Your task to perform on an android device: change the upload size in google photos Image 0: 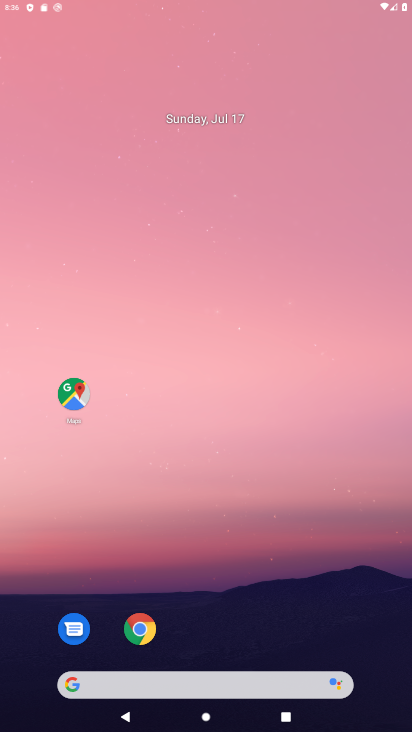
Step 0: click (286, 105)
Your task to perform on an android device: change the upload size in google photos Image 1: 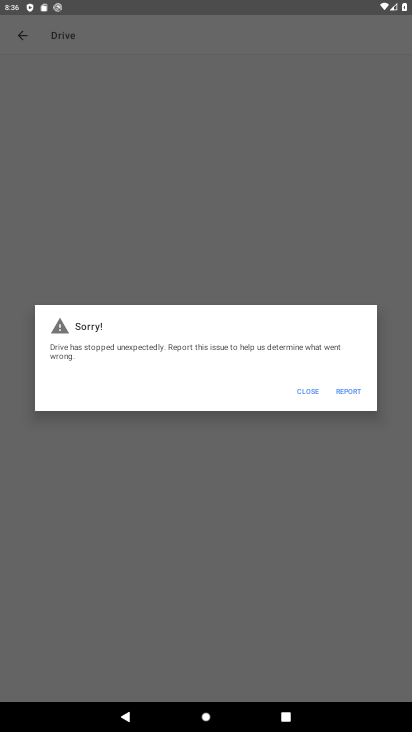
Step 1: press home button
Your task to perform on an android device: change the upload size in google photos Image 2: 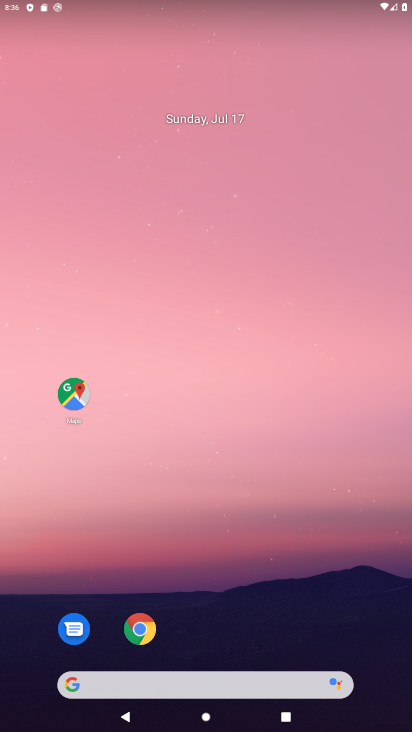
Step 2: drag from (214, 668) to (289, 84)
Your task to perform on an android device: change the upload size in google photos Image 3: 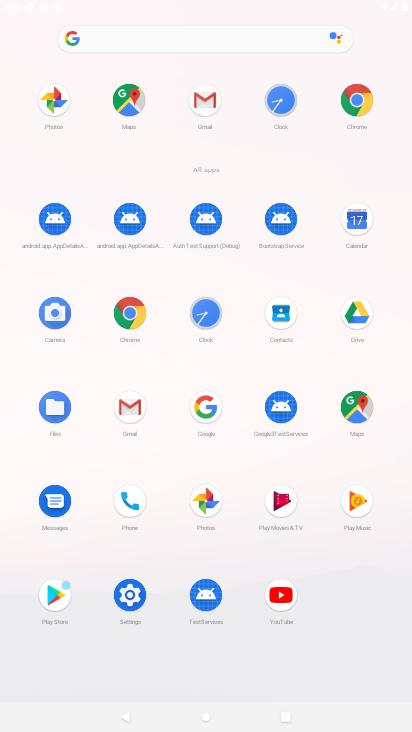
Step 3: click (197, 498)
Your task to perform on an android device: change the upload size in google photos Image 4: 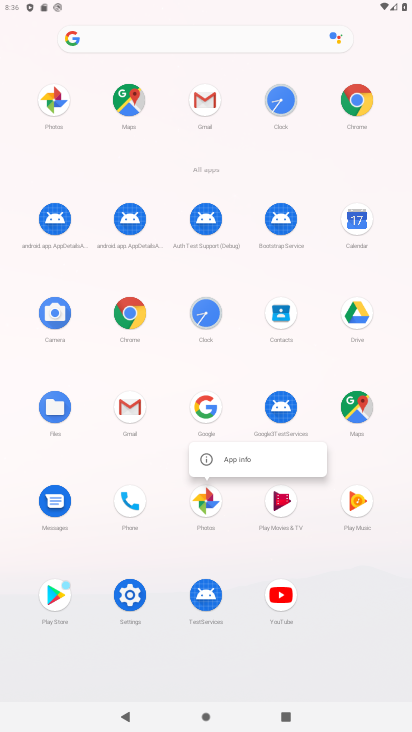
Step 4: click (203, 499)
Your task to perform on an android device: change the upload size in google photos Image 5: 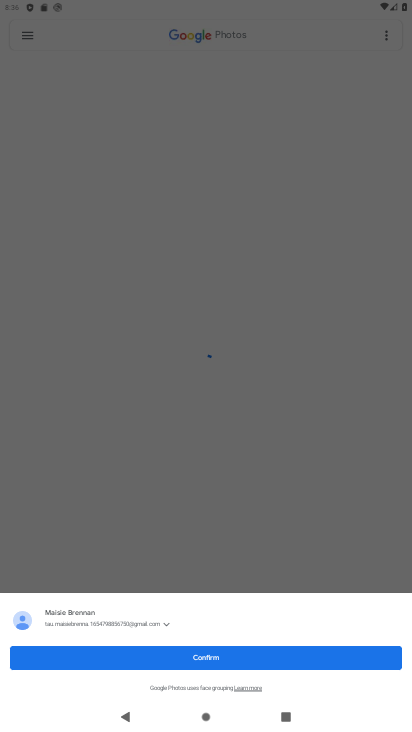
Step 5: click (29, 36)
Your task to perform on an android device: change the upload size in google photos Image 6: 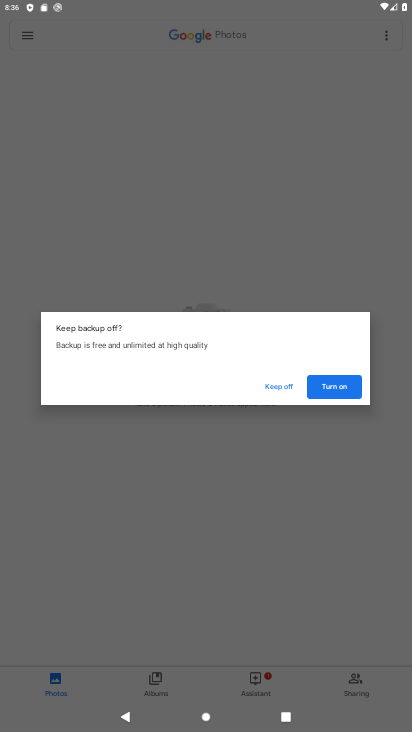
Step 6: click (337, 386)
Your task to perform on an android device: change the upload size in google photos Image 7: 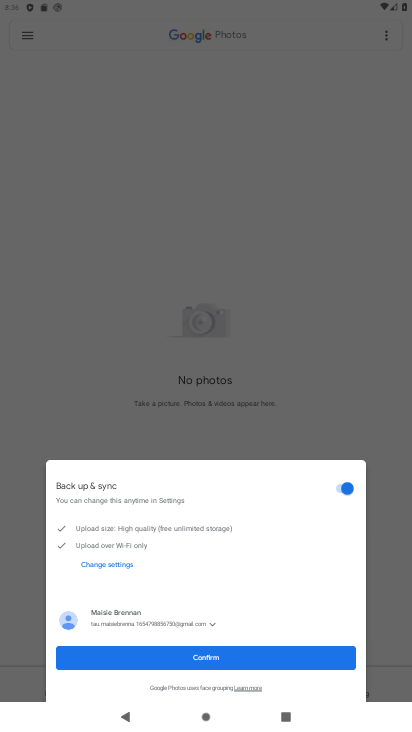
Step 7: click (197, 654)
Your task to perform on an android device: change the upload size in google photos Image 8: 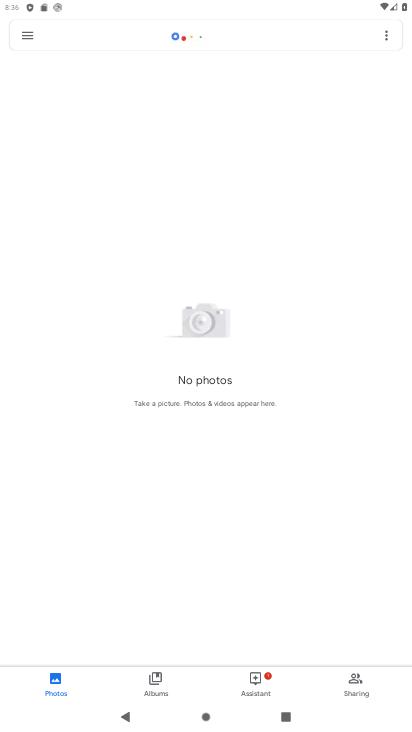
Step 8: click (38, 41)
Your task to perform on an android device: change the upload size in google photos Image 9: 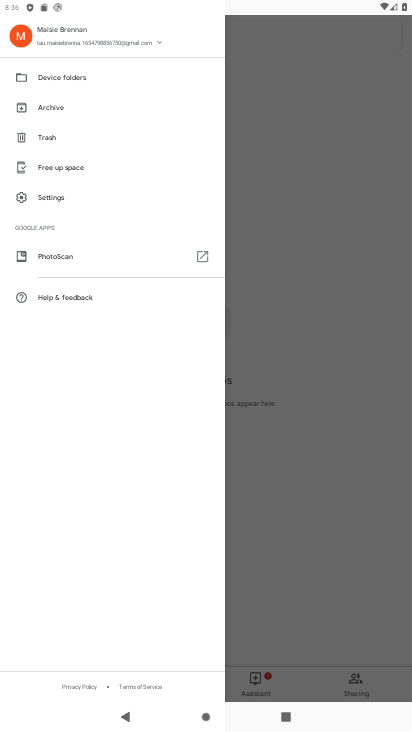
Step 9: click (83, 201)
Your task to perform on an android device: change the upload size in google photos Image 10: 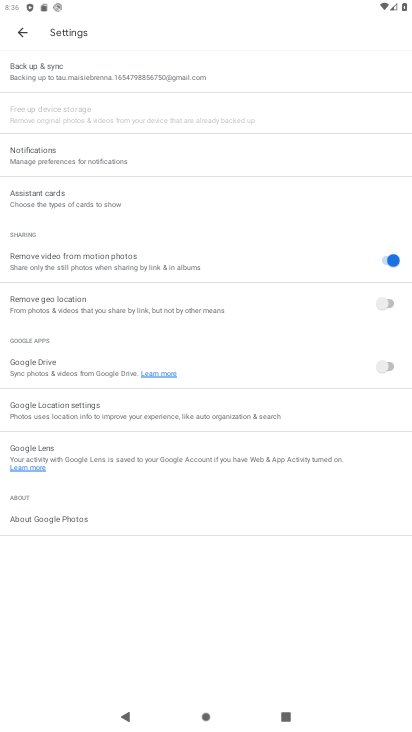
Step 10: click (88, 75)
Your task to perform on an android device: change the upload size in google photos Image 11: 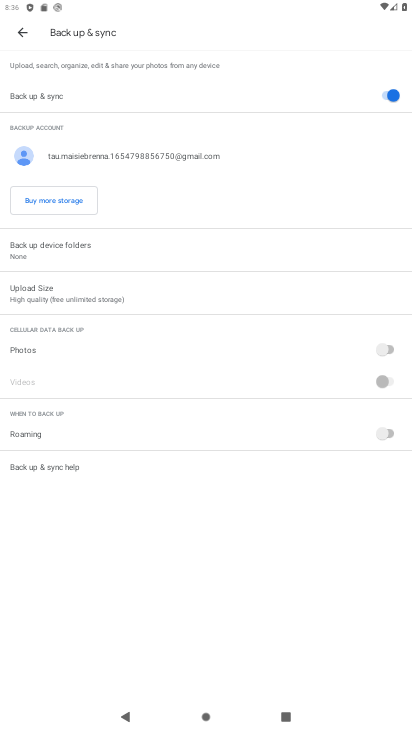
Step 11: click (108, 302)
Your task to perform on an android device: change the upload size in google photos Image 12: 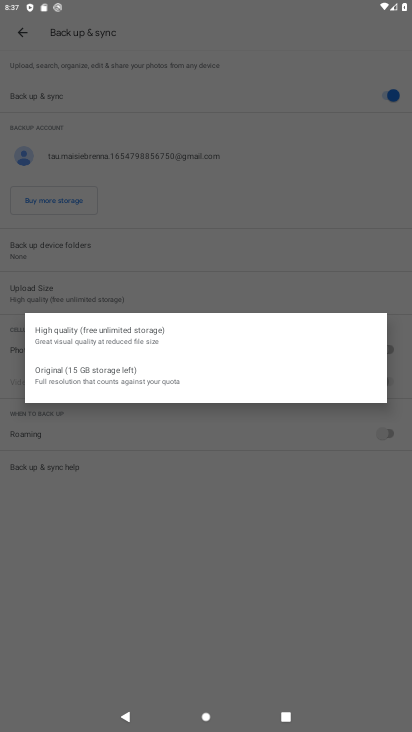
Step 12: click (95, 368)
Your task to perform on an android device: change the upload size in google photos Image 13: 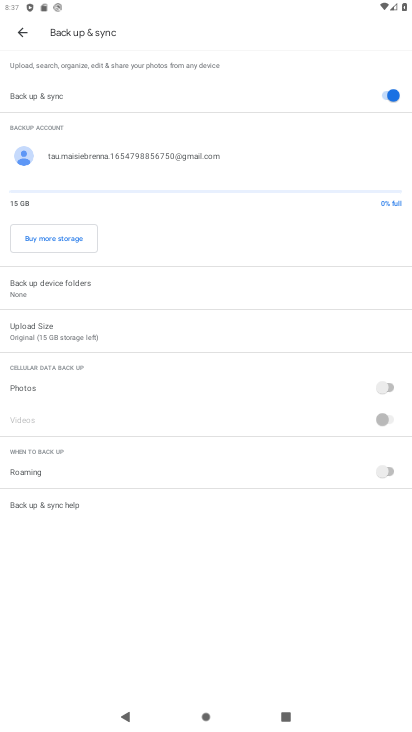
Step 13: task complete